Your task to perform on an android device: add a contact Image 0: 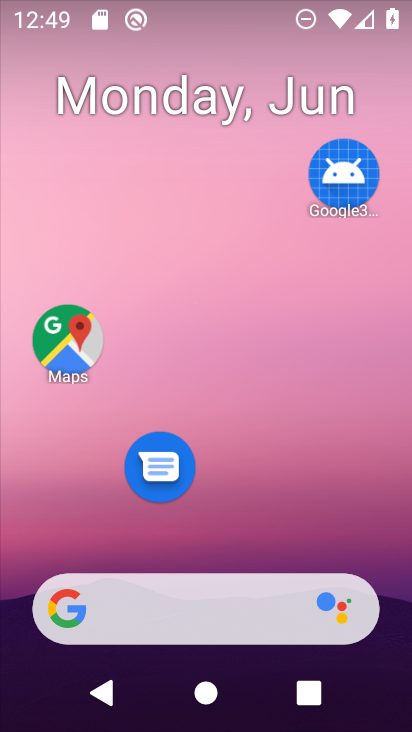
Step 0: drag from (227, 493) to (270, 5)
Your task to perform on an android device: add a contact Image 1: 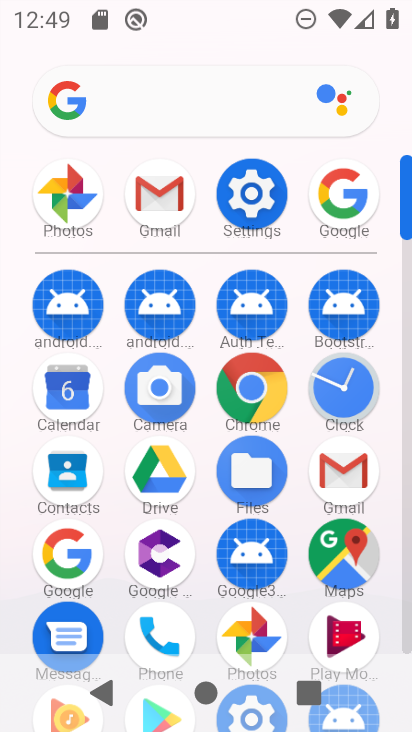
Step 1: drag from (285, 605) to (273, 370)
Your task to perform on an android device: add a contact Image 2: 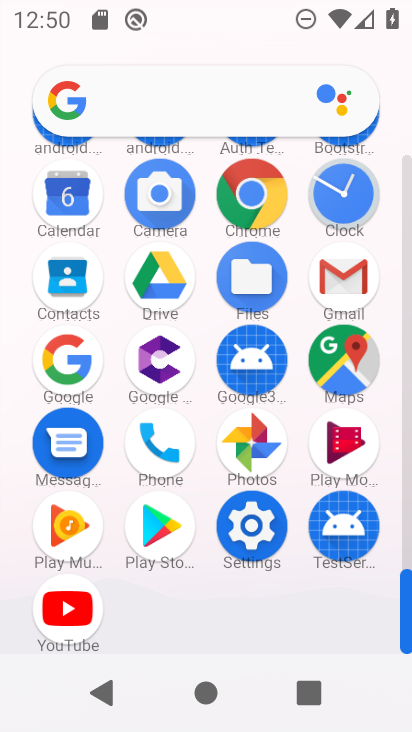
Step 2: click (175, 459)
Your task to perform on an android device: add a contact Image 3: 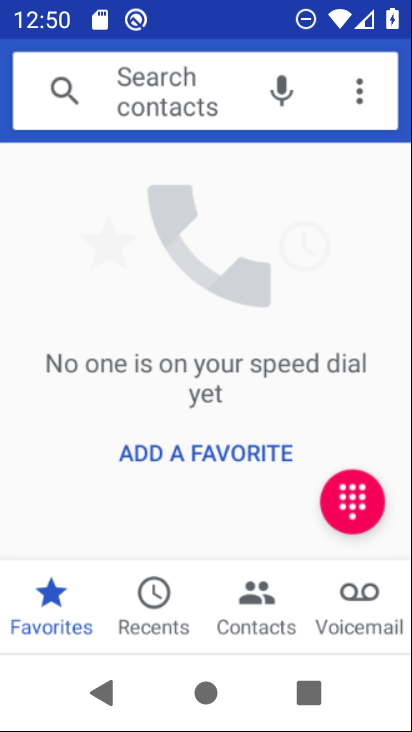
Step 3: click (331, 620)
Your task to perform on an android device: add a contact Image 4: 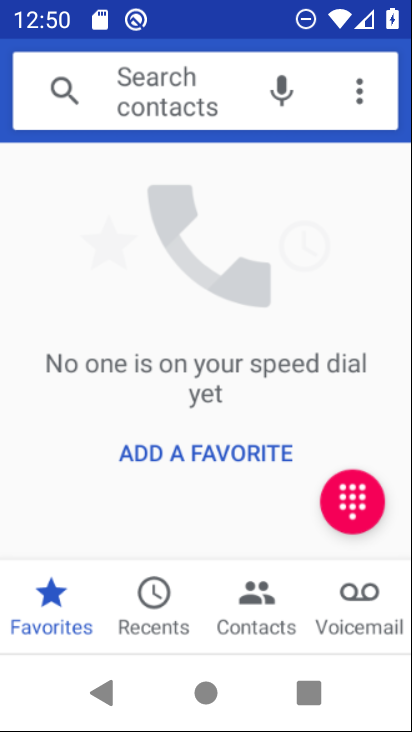
Step 4: click (195, 634)
Your task to perform on an android device: add a contact Image 5: 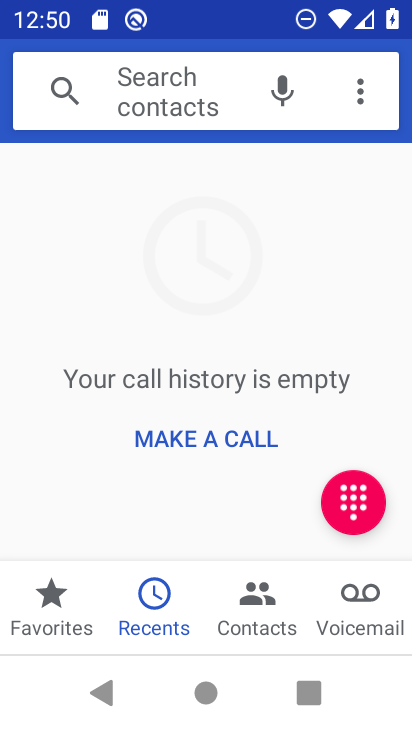
Step 5: click (236, 629)
Your task to perform on an android device: add a contact Image 6: 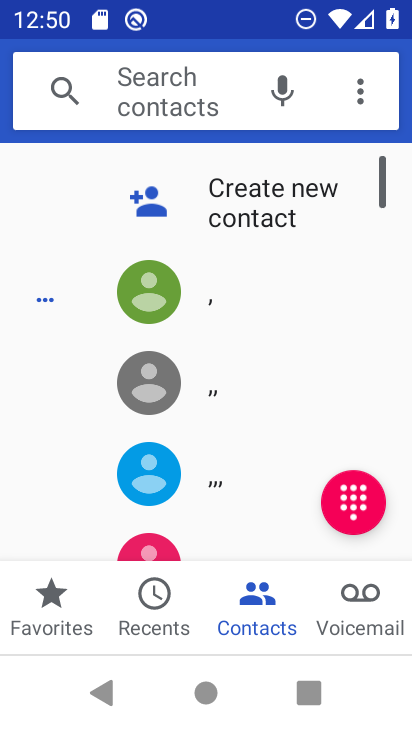
Step 6: click (232, 229)
Your task to perform on an android device: add a contact Image 7: 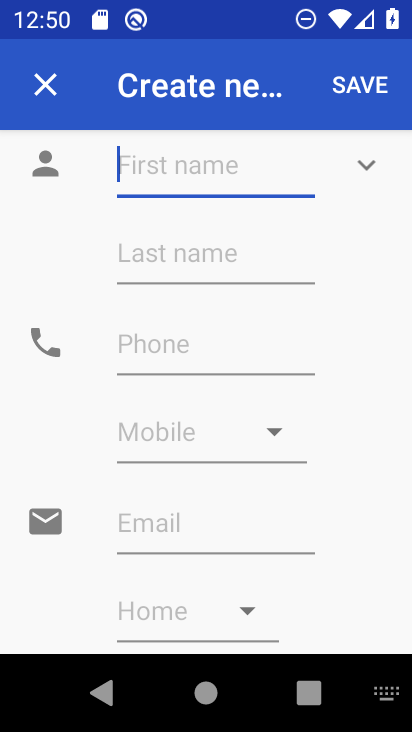
Step 7: type "sdhj./'p[ofhnk"
Your task to perform on an android device: add a contact Image 8: 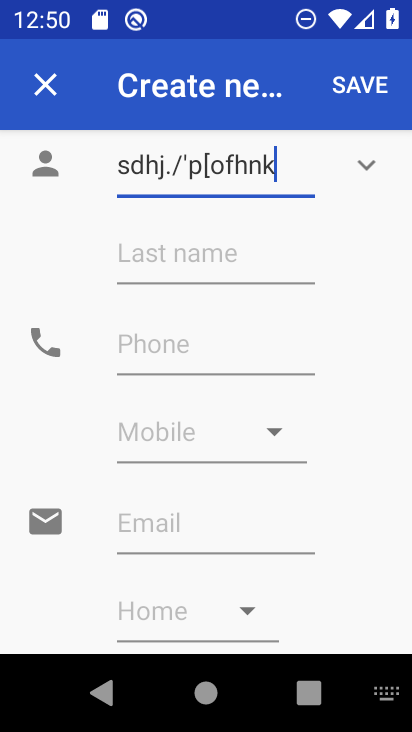
Step 8: click (229, 355)
Your task to perform on an android device: add a contact Image 9: 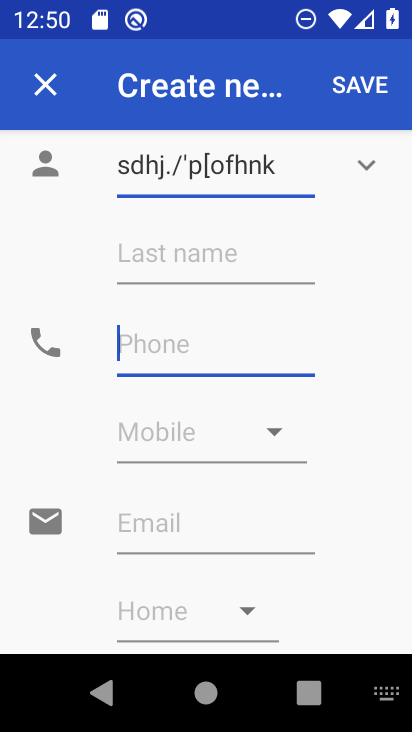
Step 9: click (229, 355)
Your task to perform on an android device: add a contact Image 10: 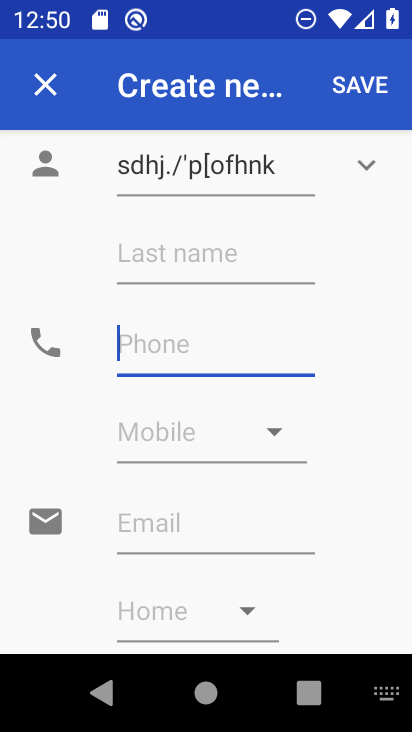
Step 10: click (229, 355)
Your task to perform on an android device: add a contact Image 11: 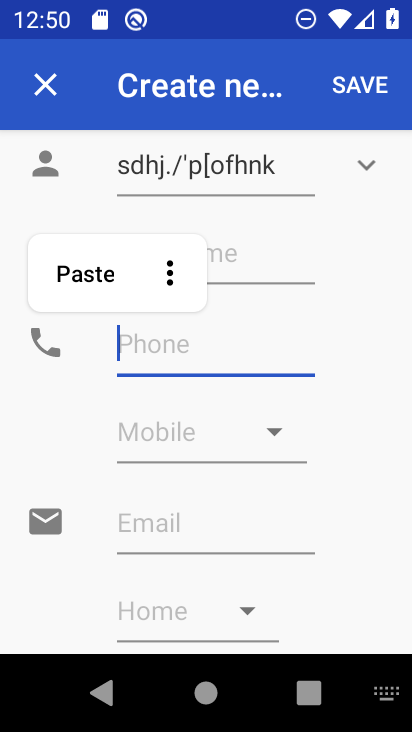
Step 11: type "68666648"
Your task to perform on an android device: add a contact Image 12: 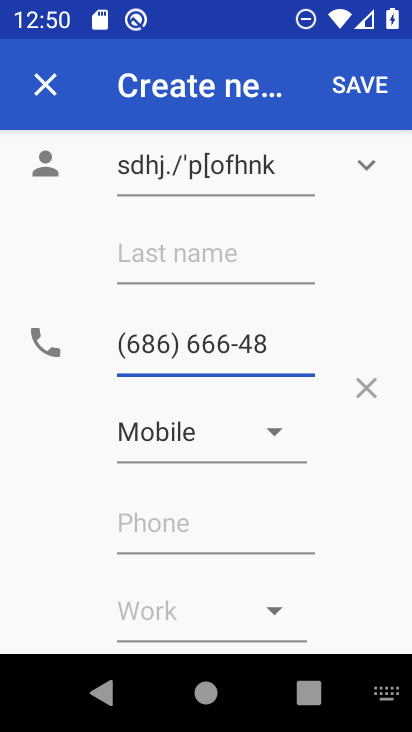
Step 12: click (375, 80)
Your task to perform on an android device: add a contact Image 13: 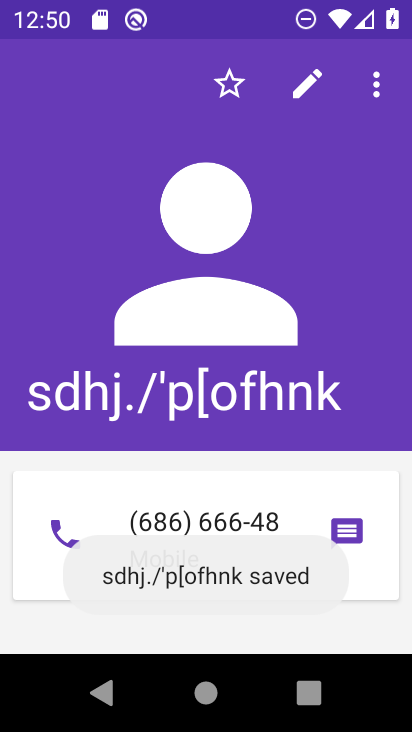
Step 13: task complete